Your task to perform on an android device: turn on showing notifications on the lock screen Image 0: 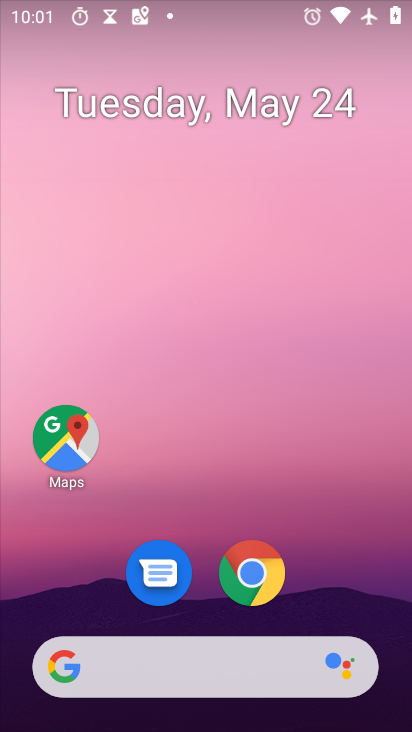
Step 0: drag from (336, 502) to (269, 27)
Your task to perform on an android device: turn on showing notifications on the lock screen Image 1: 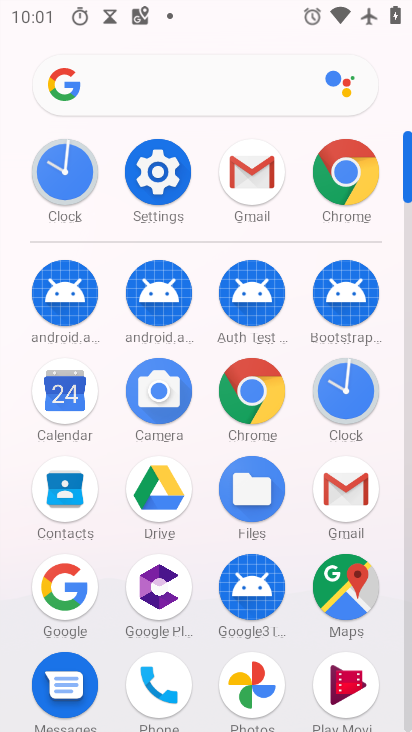
Step 1: click (134, 200)
Your task to perform on an android device: turn on showing notifications on the lock screen Image 2: 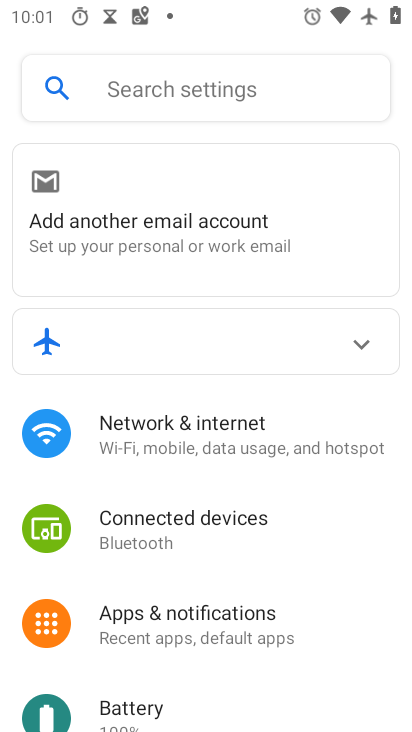
Step 2: click (250, 646)
Your task to perform on an android device: turn on showing notifications on the lock screen Image 3: 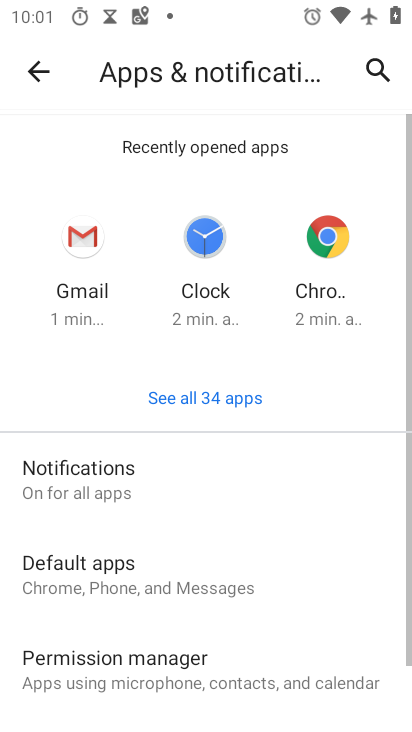
Step 3: click (102, 484)
Your task to perform on an android device: turn on showing notifications on the lock screen Image 4: 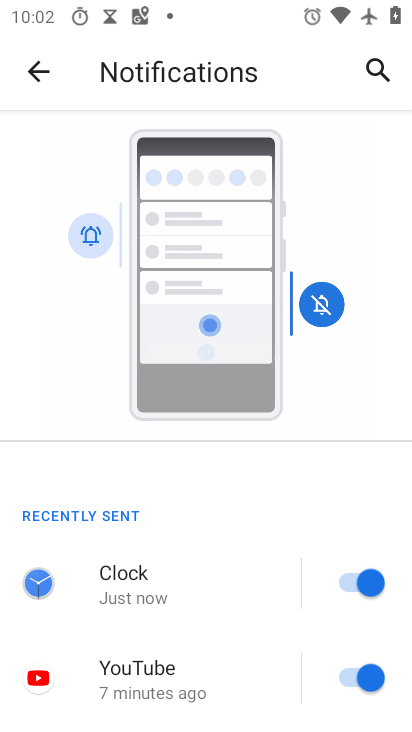
Step 4: drag from (182, 587) to (279, 137)
Your task to perform on an android device: turn on showing notifications on the lock screen Image 5: 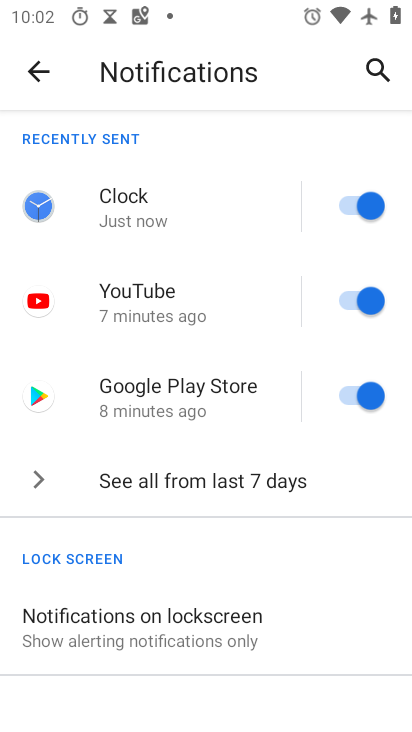
Step 5: click (145, 625)
Your task to perform on an android device: turn on showing notifications on the lock screen Image 6: 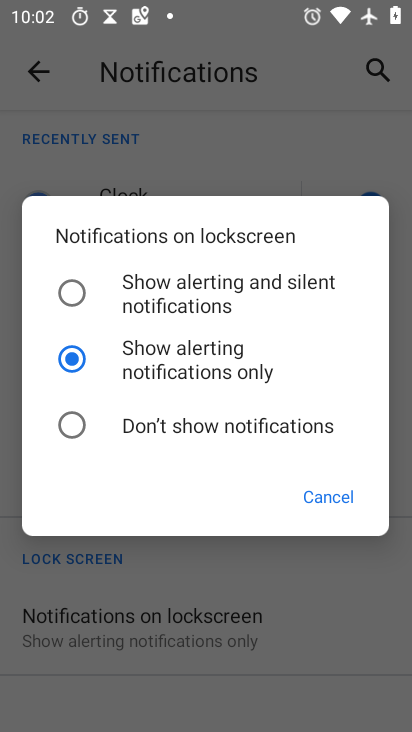
Step 6: click (67, 303)
Your task to perform on an android device: turn on showing notifications on the lock screen Image 7: 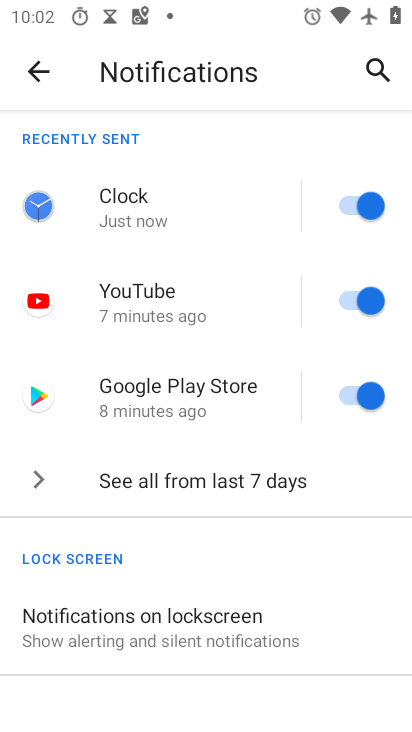
Step 7: task complete